Your task to perform on an android device: turn off smart reply in the gmail app Image 0: 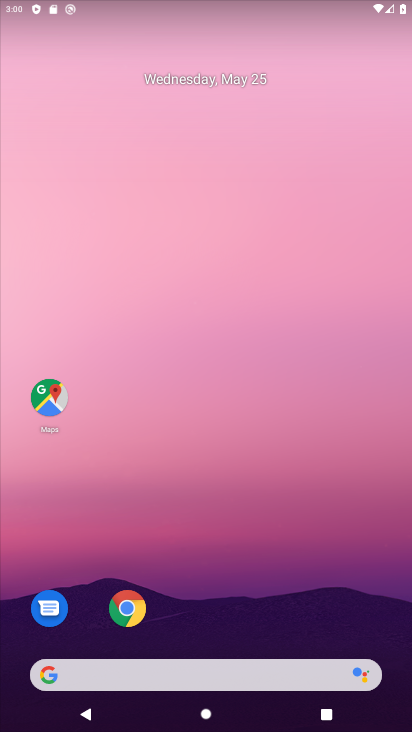
Step 0: drag from (304, 630) to (299, 226)
Your task to perform on an android device: turn off smart reply in the gmail app Image 1: 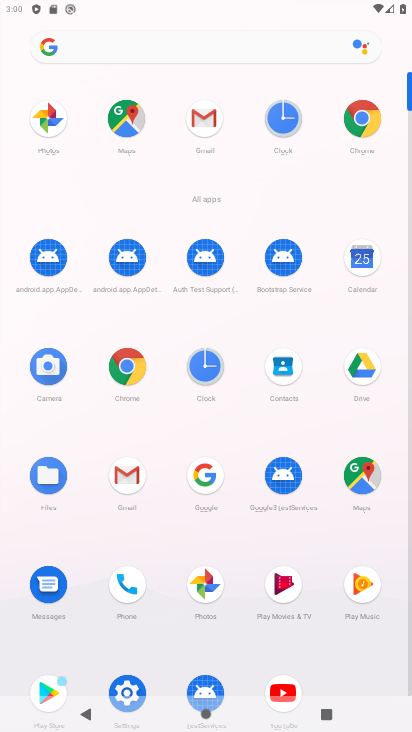
Step 1: click (208, 129)
Your task to perform on an android device: turn off smart reply in the gmail app Image 2: 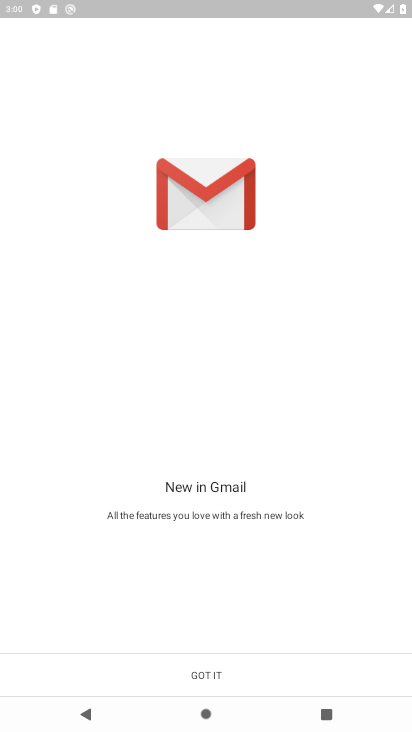
Step 2: click (227, 641)
Your task to perform on an android device: turn off smart reply in the gmail app Image 3: 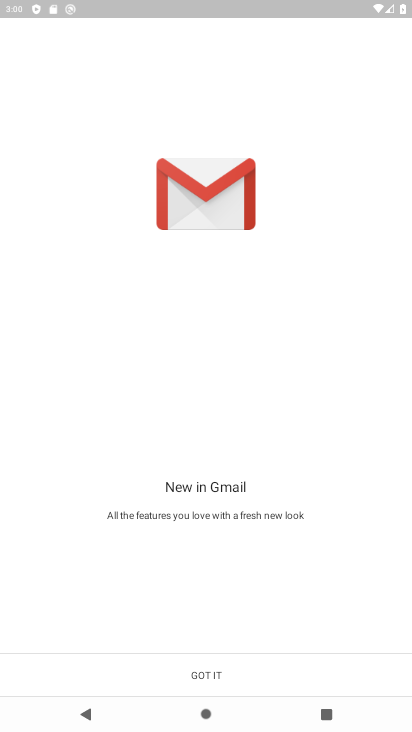
Step 3: click (220, 667)
Your task to perform on an android device: turn off smart reply in the gmail app Image 4: 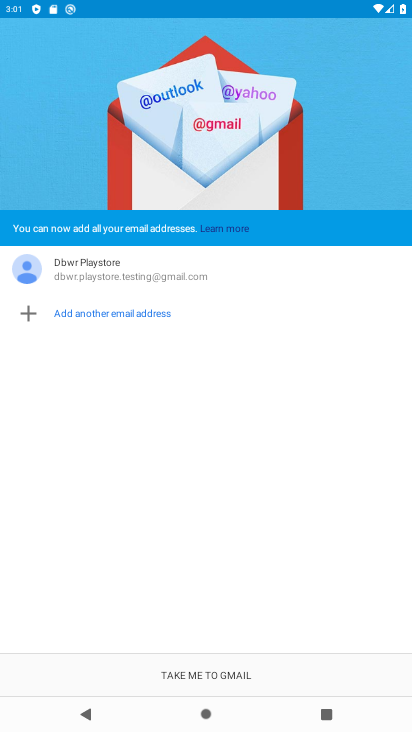
Step 4: click (240, 687)
Your task to perform on an android device: turn off smart reply in the gmail app Image 5: 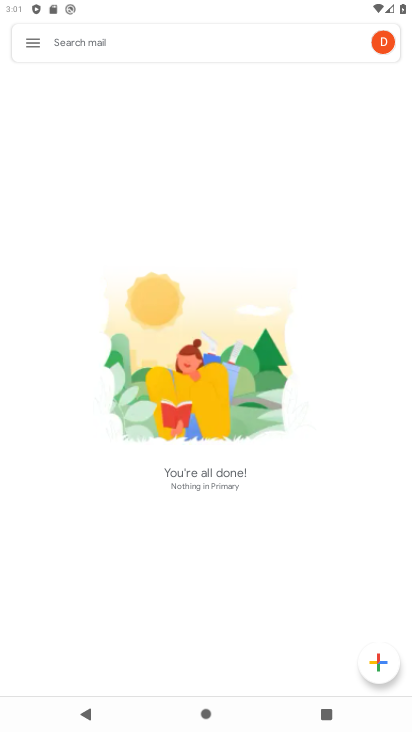
Step 5: click (39, 42)
Your task to perform on an android device: turn off smart reply in the gmail app Image 6: 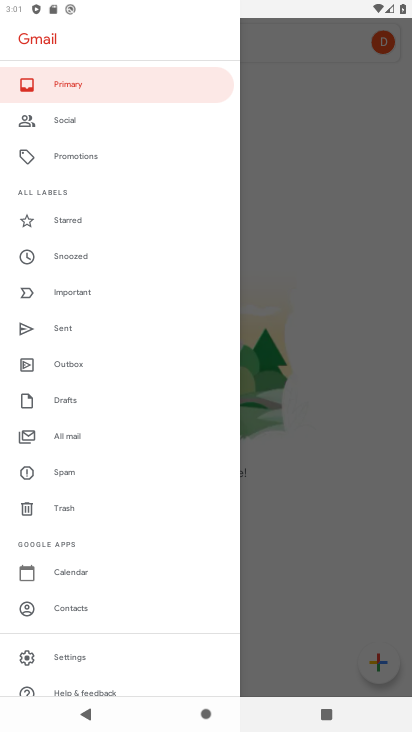
Step 6: click (99, 661)
Your task to perform on an android device: turn off smart reply in the gmail app Image 7: 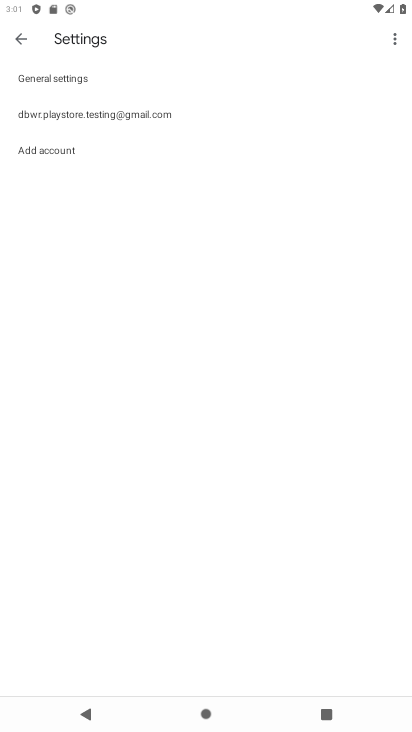
Step 7: click (142, 123)
Your task to perform on an android device: turn off smart reply in the gmail app Image 8: 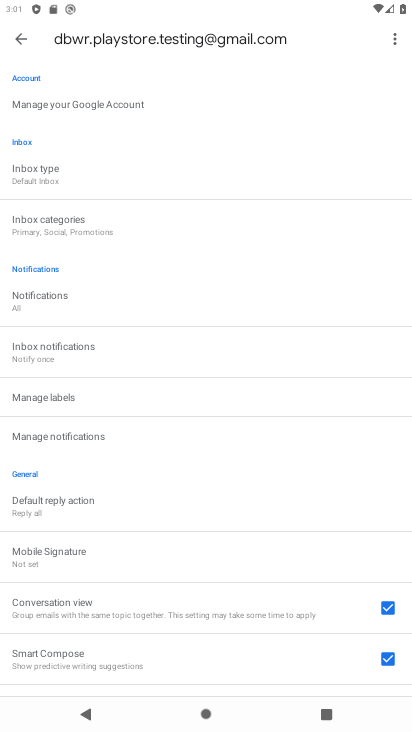
Step 8: drag from (130, 537) to (221, 243)
Your task to perform on an android device: turn off smart reply in the gmail app Image 9: 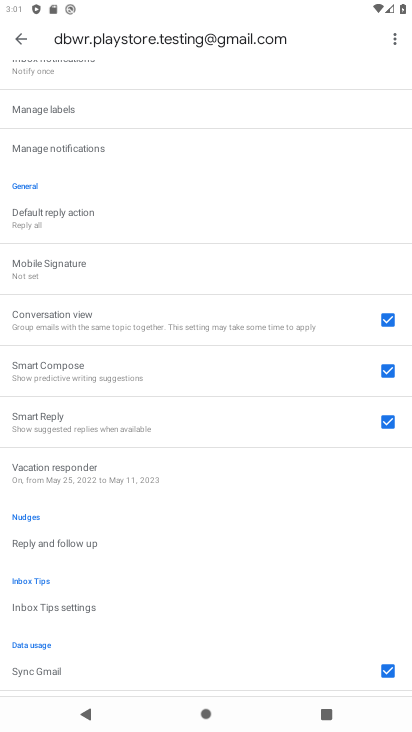
Step 9: click (387, 426)
Your task to perform on an android device: turn off smart reply in the gmail app Image 10: 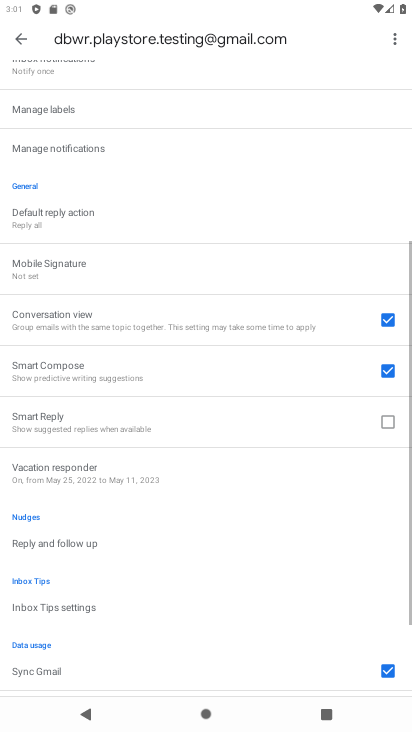
Step 10: task complete